Your task to perform on an android device: see tabs open on other devices in the chrome app Image 0: 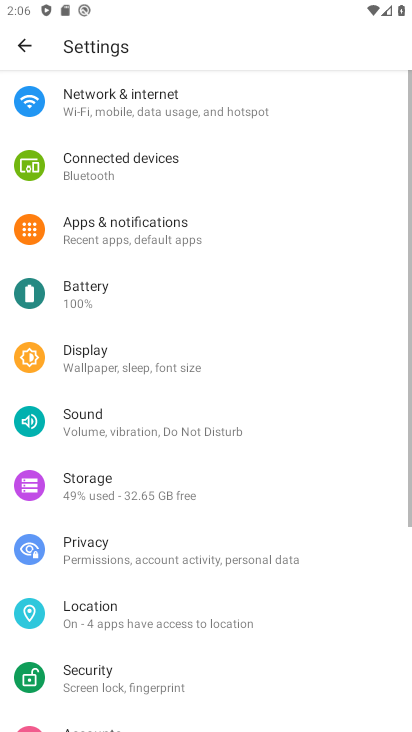
Step 0: press back button
Your task to perform on an android device: see tabs open on other devices in the chrome app Image 1: 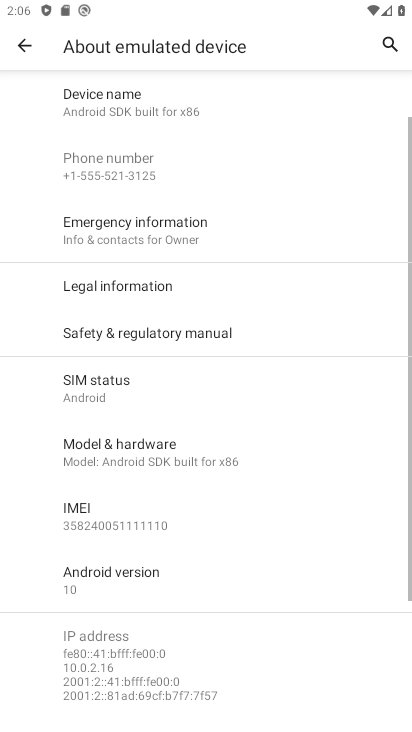
Step 1: click (21, 37)
Your task to perform on an android device: see tabs open on other devices in the chrome app Image 2: 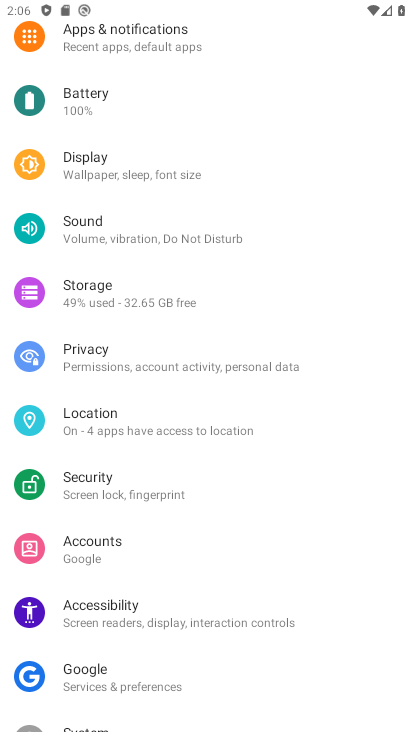
Step 2: press back button
Your task to perform on an android device: see tabs open on other devices in the chrome app Image 3: 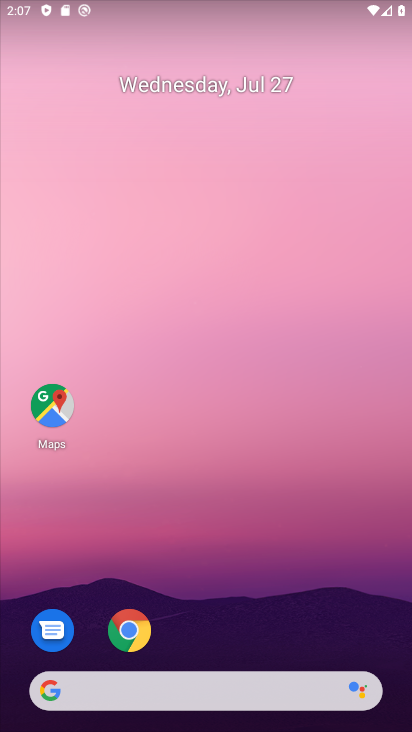
Step 3: drag from (239, 715) to (159, 35)
Your task to perform on an android device: see tabs open on other devices in the chrome app Image 4: 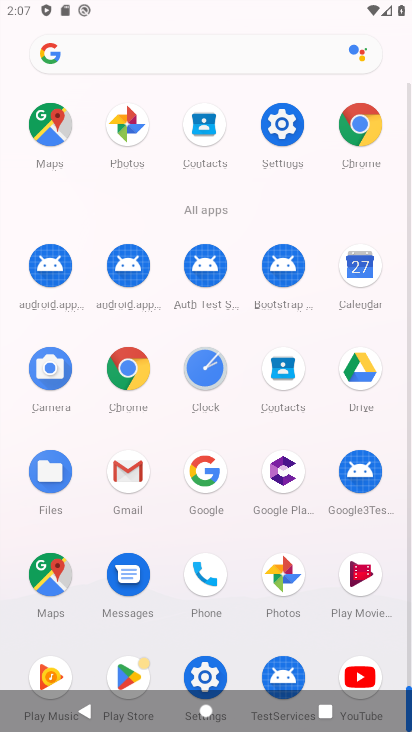
Step 4: drag from (196, 525) to (109, 127)
Your task to perform on an android device: see tabs open on other devices in the chrome app Image 5: 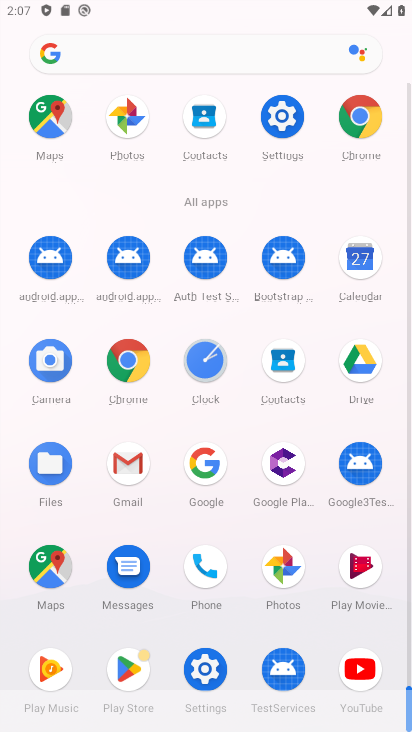
Step 5: click (127, 335)
Your task to perform on an android device: see tabs open on other devices in the chrome app Image 6: 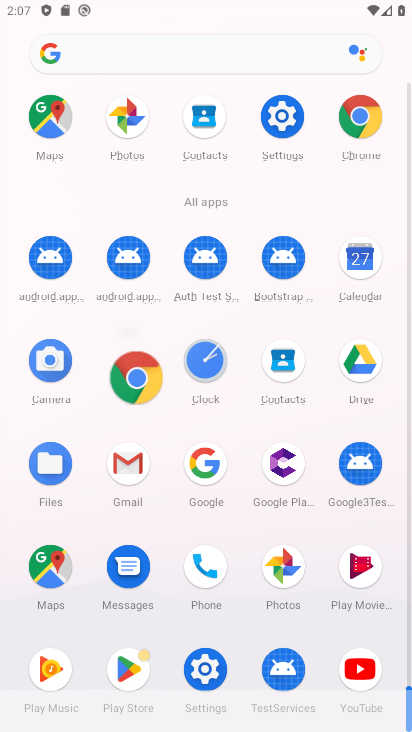
Step 6: click (135, 352)
Your task to perform on an android device: see tabs open on other devices in the chrome app Image 7: 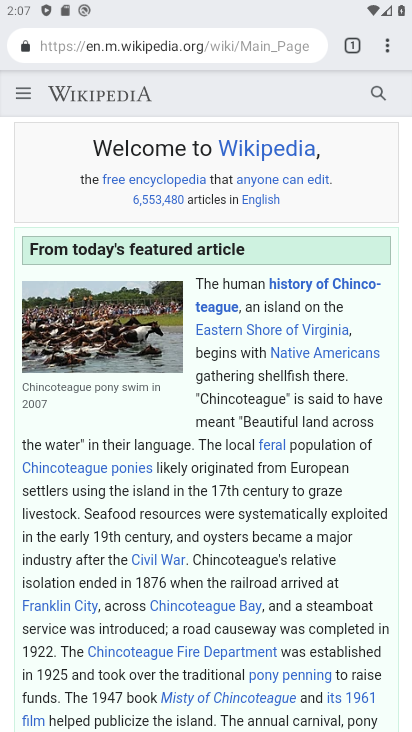
Step 7: click (386, 47)
Your task to perform on an android device: see tabs open on other devices in the chrome app Image 8: 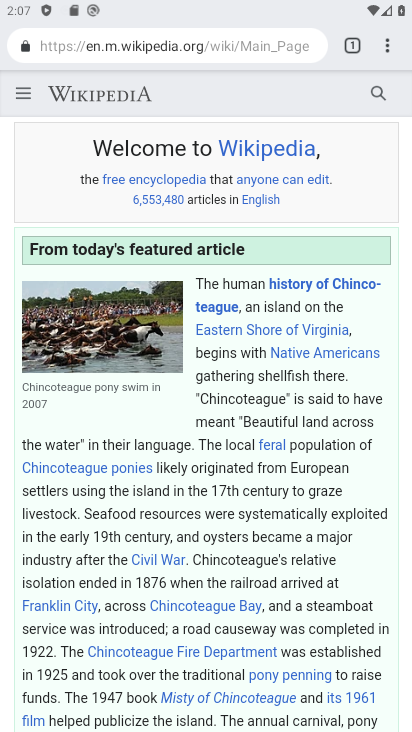
Step 8: task complete